Your task to perform on an android device: Search for vegetarian restaurants on Maps Image 0: 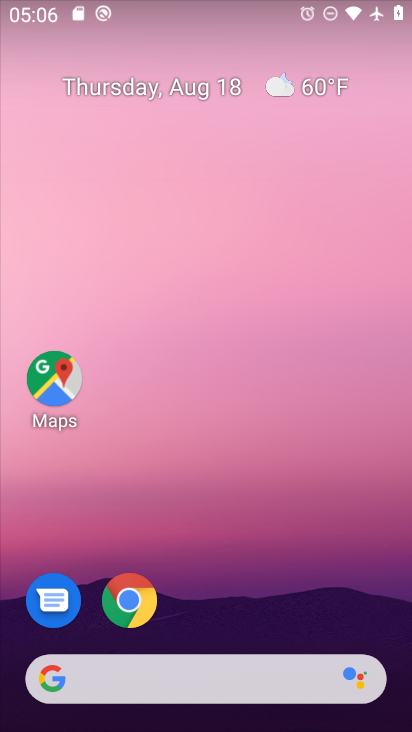
Step 0: press home button
Your task to perform on an android device: Search for vegetarian restaurants on Maps Image 1: 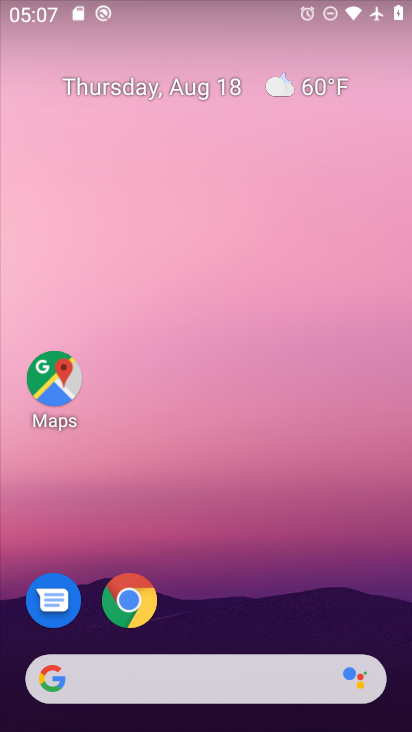
Step 1: click (38, 388)
Your task to perform on an android device: Search for vegetarian restaurants on Maps Image 2: 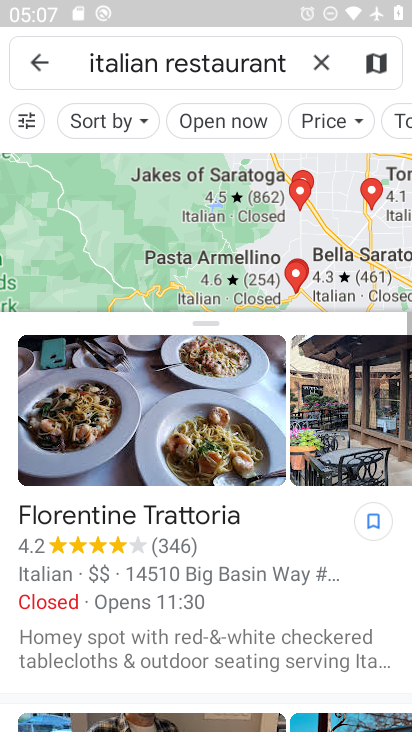
Step 2: press back button
Your task to perform on an android device: Search for vegetarian restaurants on Maps Image 3: 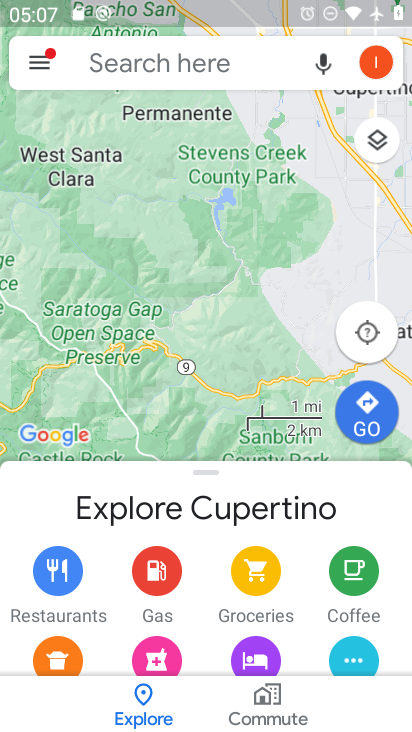
Step 3: click (157, 63)
Your task to perform on an android device: Search for vegetarian restaurants on Maps Image 4: 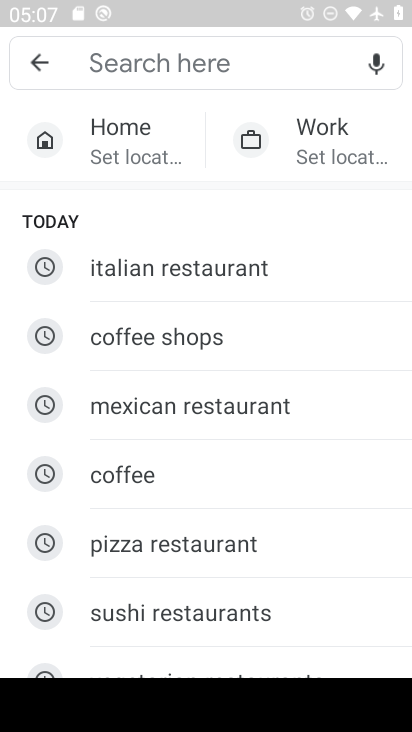
Step 4: drag from (273, 652) to (296, 303)
Your task to perform on an android device: Search for vegetarian restaurants on Maps Image 5: 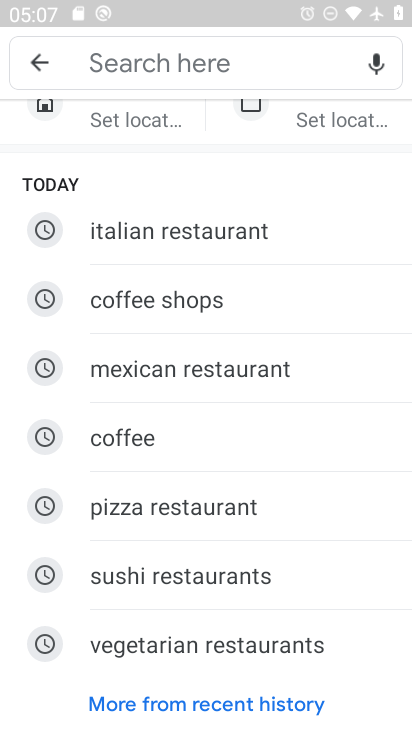
Step 5: click (201, 649)
Your task to perform on an android device: Search for vegetarian restaurants on Maps Image 6: 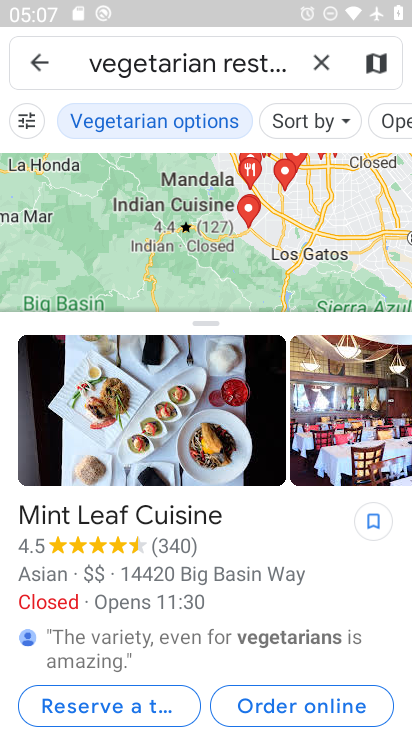
Step 6: task complete